Your task to perform on an android device: open the mobile data screen to see how much data has been used Image 0: 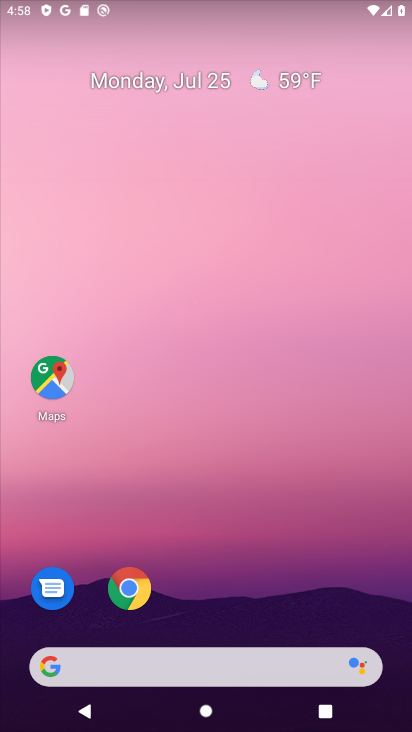
Step 0: drag from (302, 516) to (298, 91)
Your task to perform on an android device: open the mobile data screen to see how much data has been used Image 1: 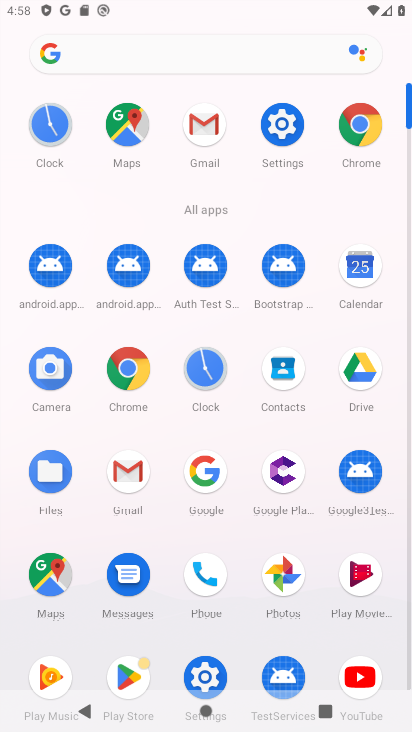
Step 1: click (286, 131)
Your task to perform on an android device: open the mobile data screen to see how much data has been used Image 2: 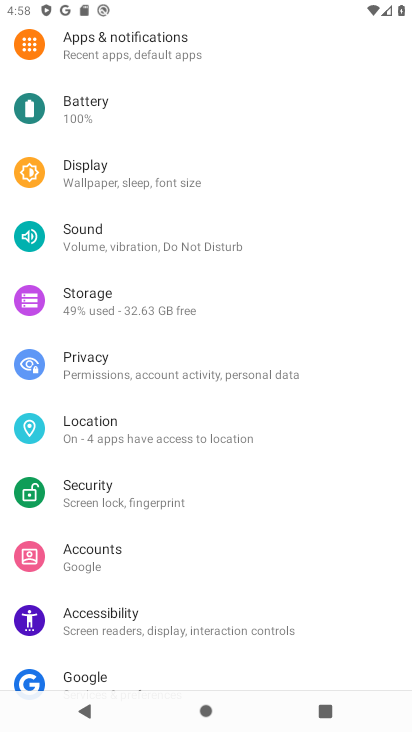
Step 2: task complete